Your task to perform on an android device: Open Google Image 0: 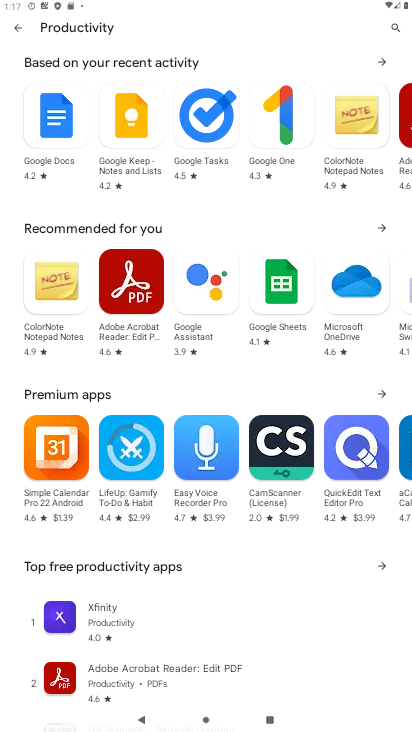
Step 0: press home button
Your task to perform on an android device: Open Google Image 1: 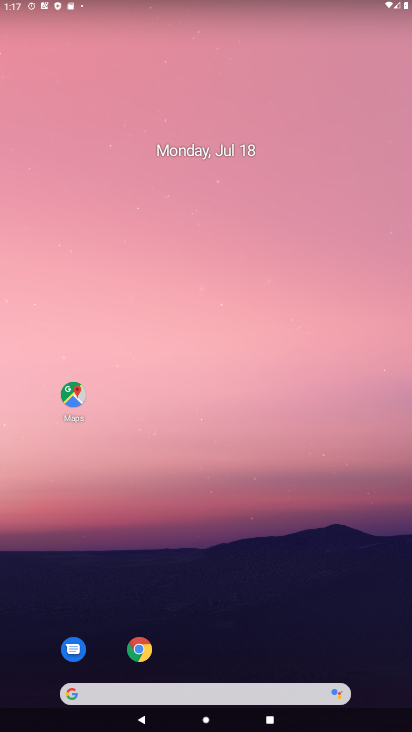
Step 1: drag from (180, 646) to (74, 103)
Your task to perform on an android device: Open Google Image 2: 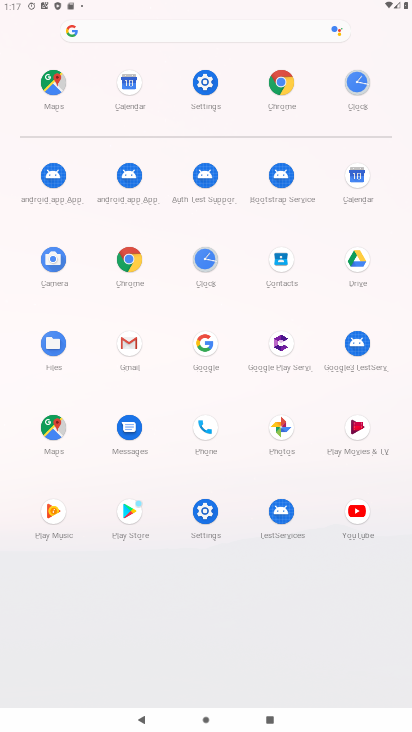
Step 2: click (193, 340)
Your task to perform on an android device: Open Google Image 3: 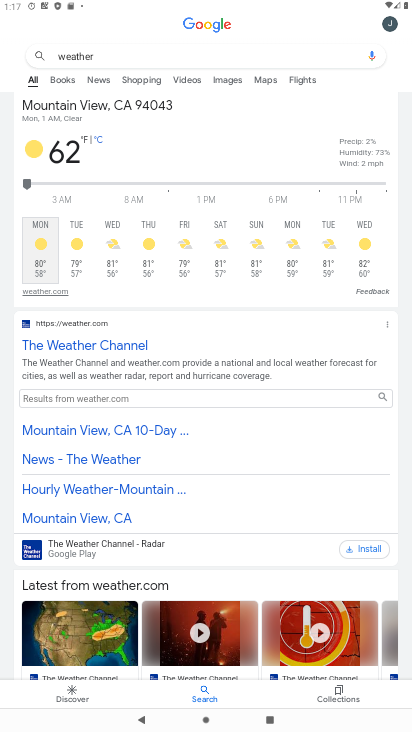
Step 3: task complete